Your task to perform on an android device: turn on notifications settings in the gmail app Image 0: 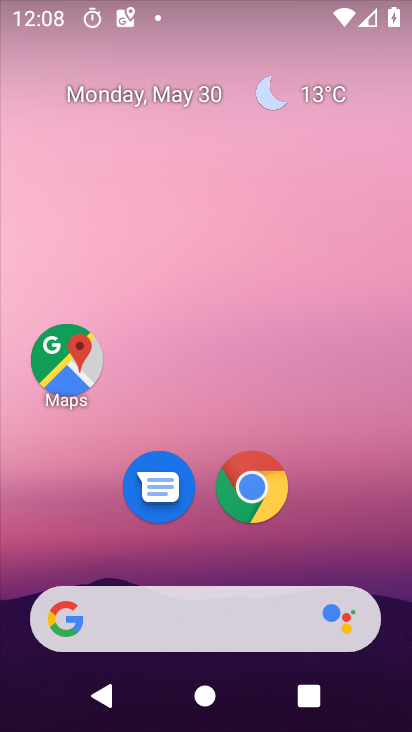
Step 0: drag from (404, 672) to (359, 253)
Your task to perform on an android device: turn on notifications settings in the gmail app Image 1: 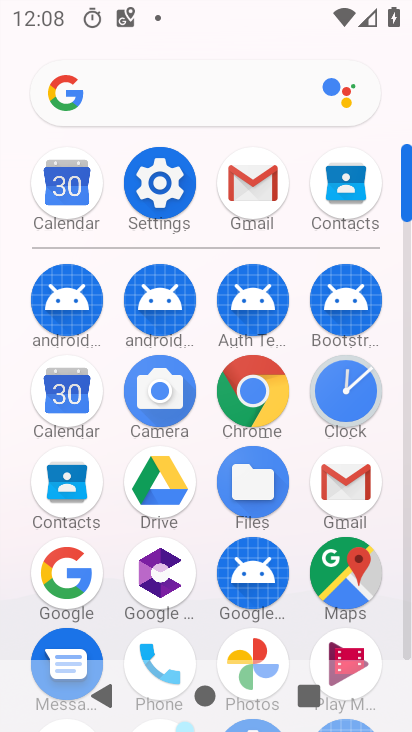
Step 1: click (333, 487)
Your task to perform on an android device: turn on notifications settings in the gmail app Image 2: 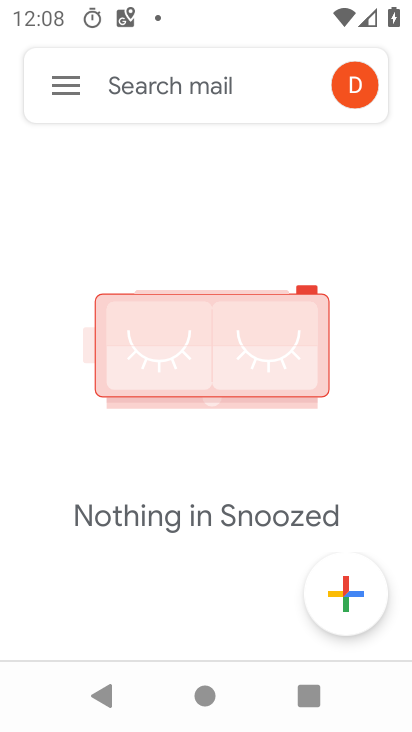
Step 2: press back button
Your task to perform on an android device: turn on notifications settings in the gmail app Image 3: 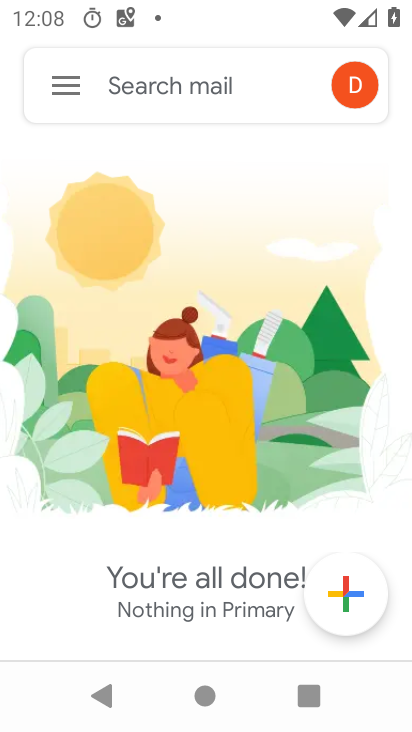
Step 3: press home button
Your task to perform on an android device: turn on notifications settings in the gmail app Image 4: 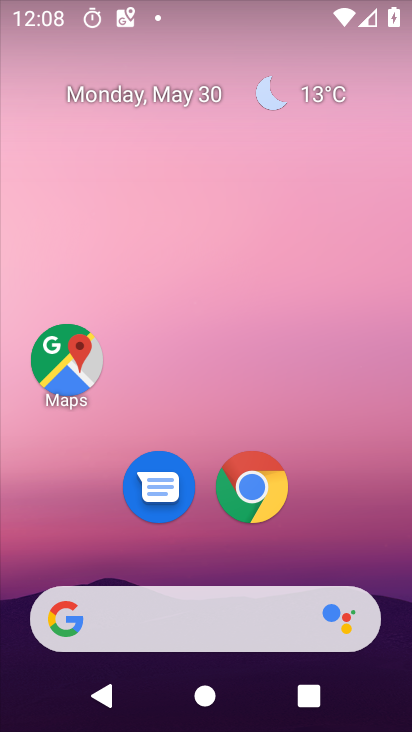
Step 4: drag from (378, 718) to (329, 175)
Your task to perform on an android device: turn on notifications settings in the gmail app Image 5: 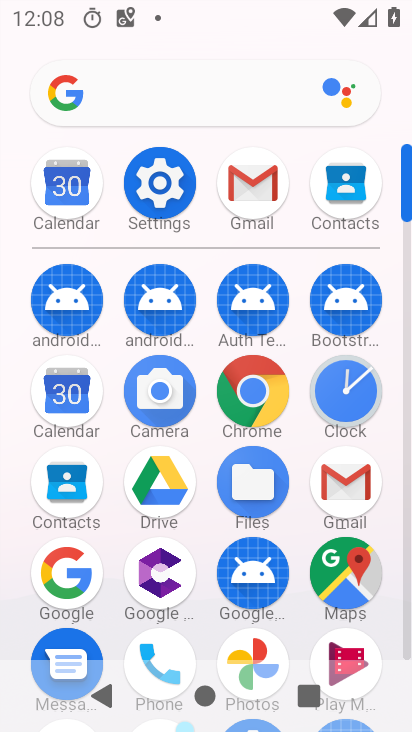
Step 5: click (351, 488)
Your task to perform on an android device: turn on notifications settings in the gmail app Image 6: 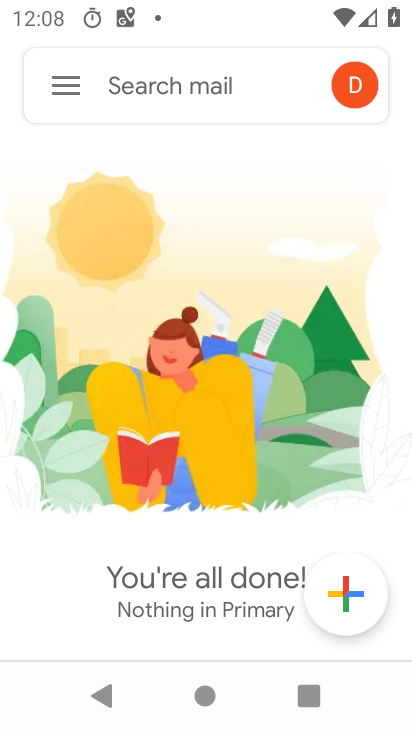
Step 6: click (61, 86)
Your task to perform on an android device: turn on notifications settings in the gmail app Image 7: 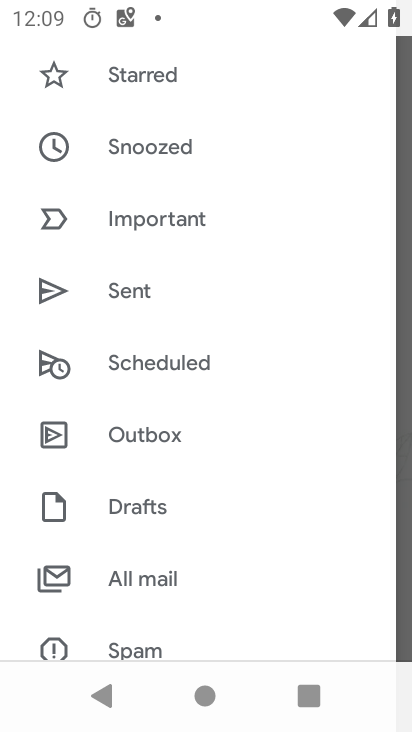
Step 7: drag from (265, 88) to (298, 614)
Your task to perform on an android device: turn on notifications settings in the gmail app Image 8: 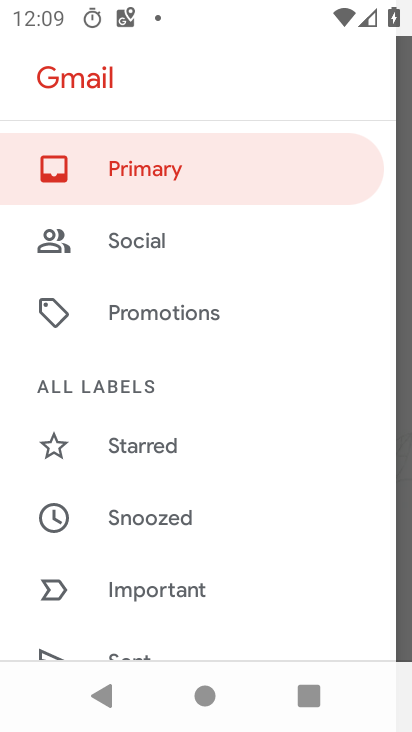
Step 8: drag from (243, 566) to (257, 305)
Your task to perform on an android device: turn on notifications settings in the gmail app Image 9: 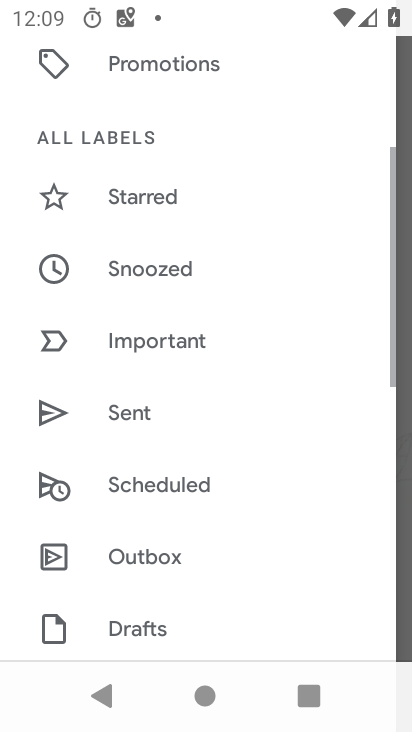
Step 9: drag from (299, 238) to (303, 595)
Your task to perform on an android device: turn on notifications settings in the gmail app Image 10: 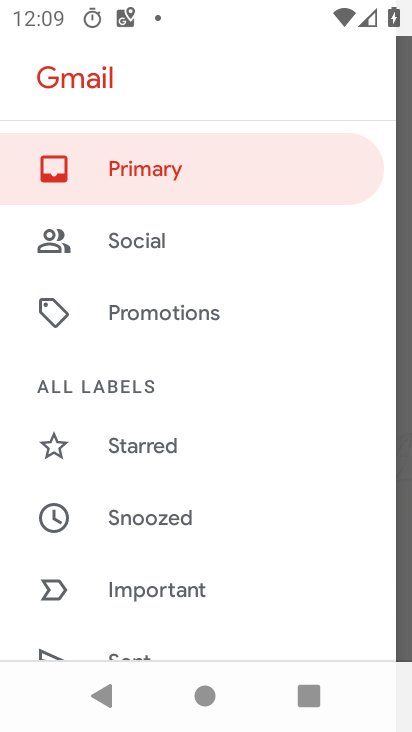
Step 10: press back button
Your task to perform on an android device: turn on notifications settings in the gmail app Image 11: 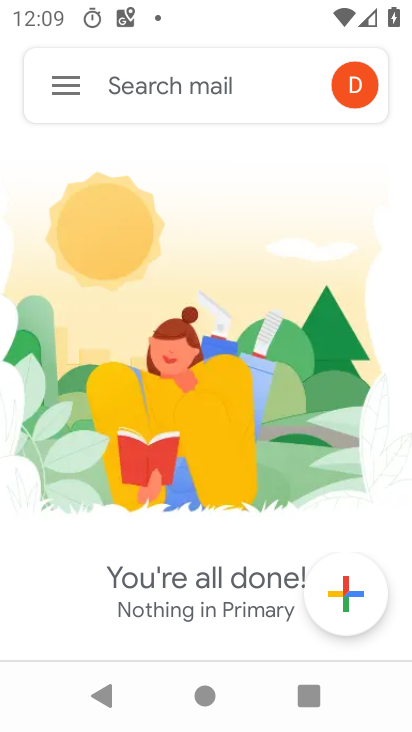
Step 11: click (61, 78)
Your task to perform on an android device: turn on notifications settings in the gmail app Image 12: 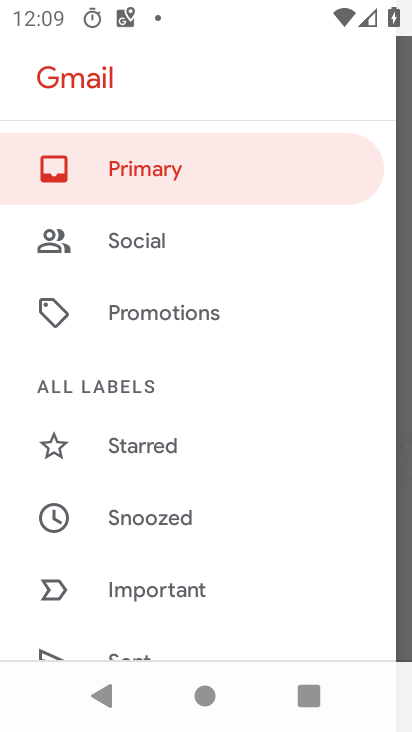
Step 12: drag from (264, 611) to (253, 270)
Your task to perform on an android device: turn on notifications settings in the gmail app Image 13: 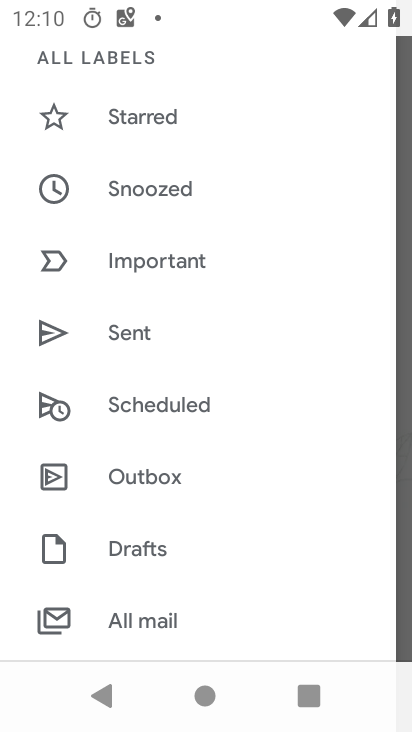
Step 13: drag from (256, 609) to (250, 149)
Your task to perform on an android device: turn on notifications settings in the gmail app Image 14: 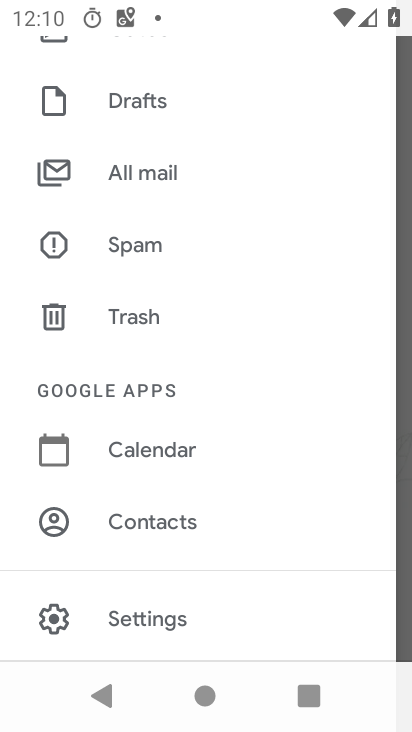
Step 14: click (137, 615)
Your task to perform on an android device: turn on notifications settings in the gmail app Image 15: 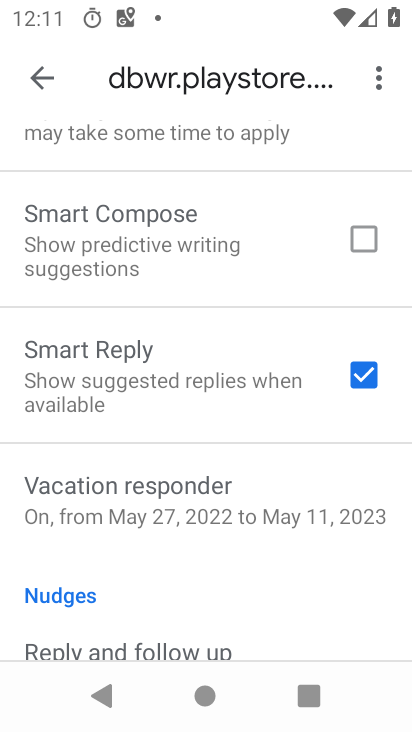
Step 15: click (28, 76)
Your task to perform on an android device: turn on notifications settings in the gmail app Image 16: 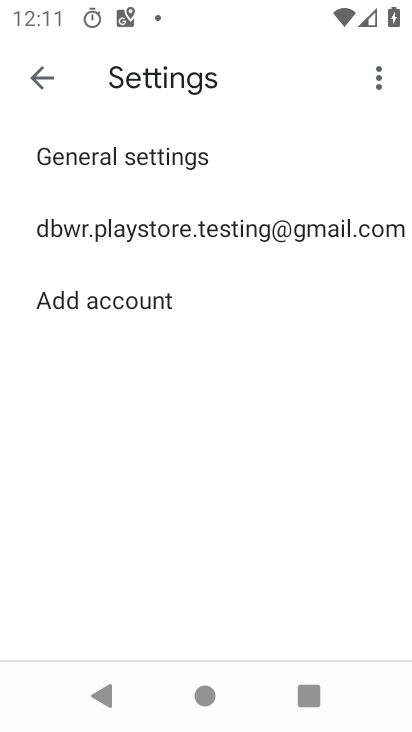
Step 16: click (136, 153)
Your task to perform on an android device: turn on notifications settings in the gmail app Image 17: 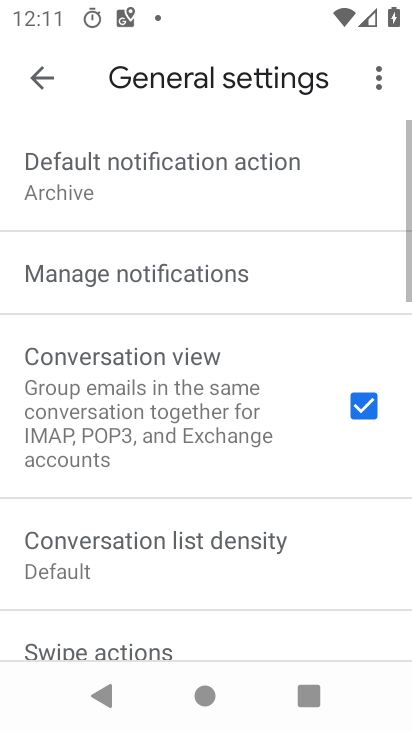
Step 17: click (127, 277)
Your task to perform on an android device: turn on notifications settings in the gmail app Image 18: 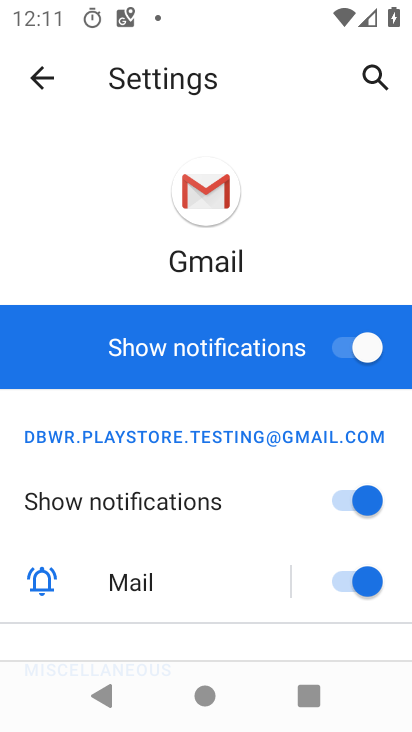
Step 18: task complete